Your task to perform on an android device: see sites visited before in the chrome app Image 0: 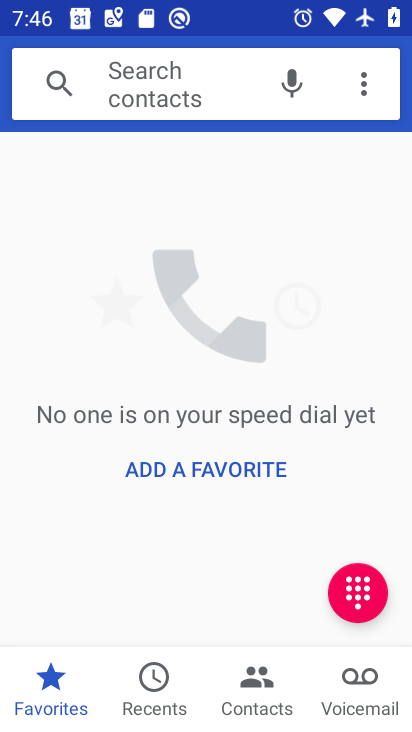
Step 0: press home button
Your task to perform on an android device: see sites visited before in the chrome app Image 1: 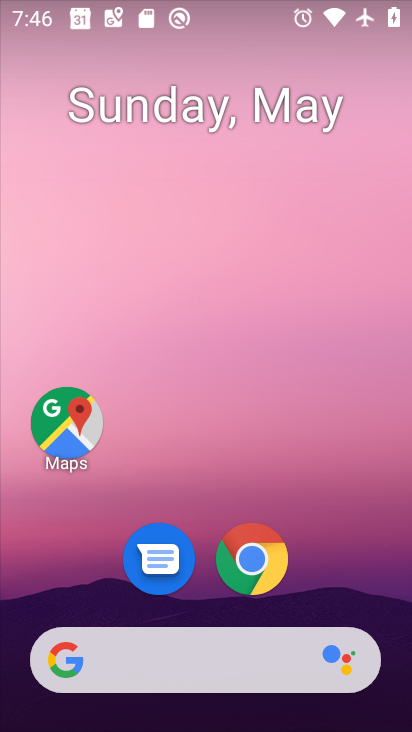
Step 1: click (265, 564)
Your task to perform on an android device: see sites visited before in the chrome app Image 2: 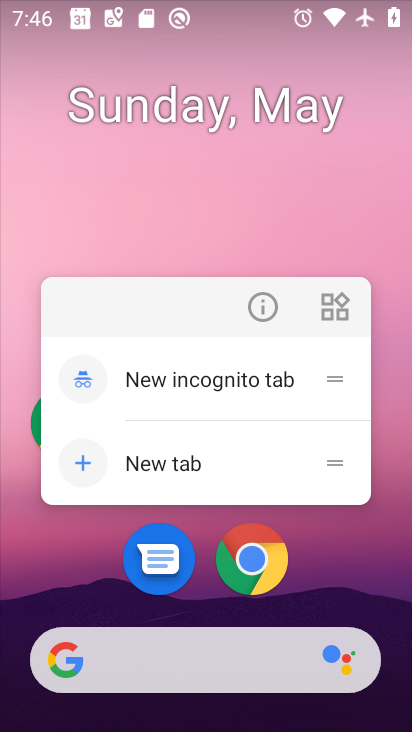
Step 2: click (256, 560)
Your task to perform on an android device: see sites visited before in the chrome app Image 3: 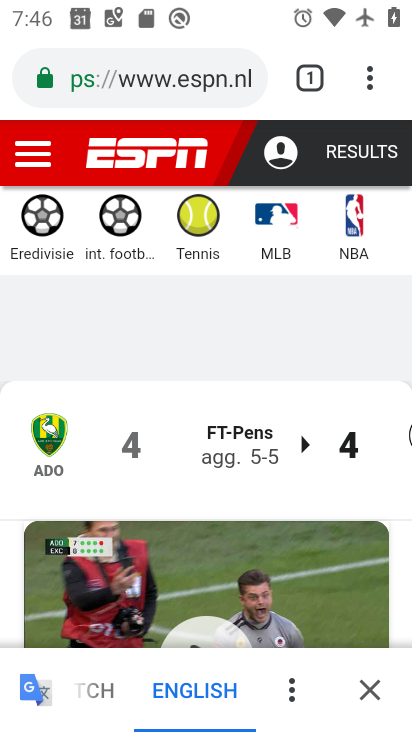
Step 3: task complete